Your task to perform on an android device: change the clock display to analog Image 0: 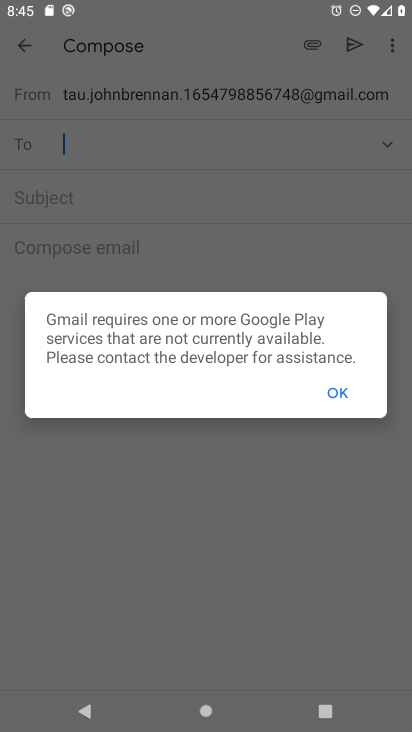
Step 0: click (351, 392)
Your task to perform on an android device: change the clock display to analog Image 1: 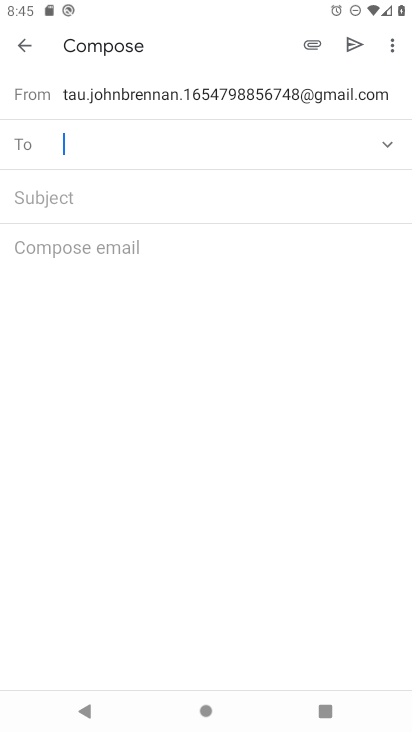
Step 1: press home button
Your task to perform on an android device: change the clock display to analog Image 2: 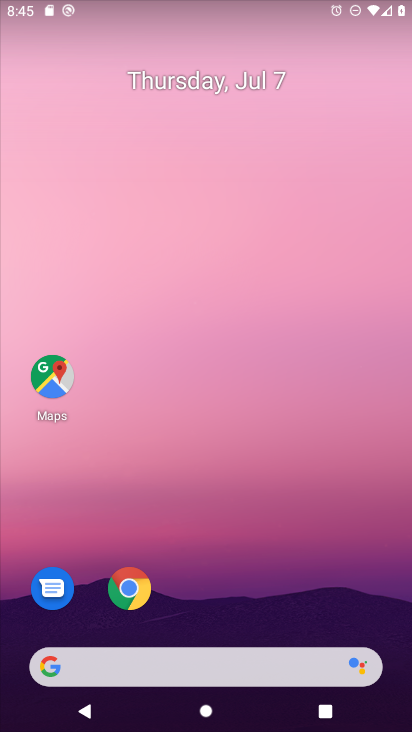
Step 2: drag from (219, 639) to (241, 155)
Your task to perform on an android device: change the clock display to analog Image 3: 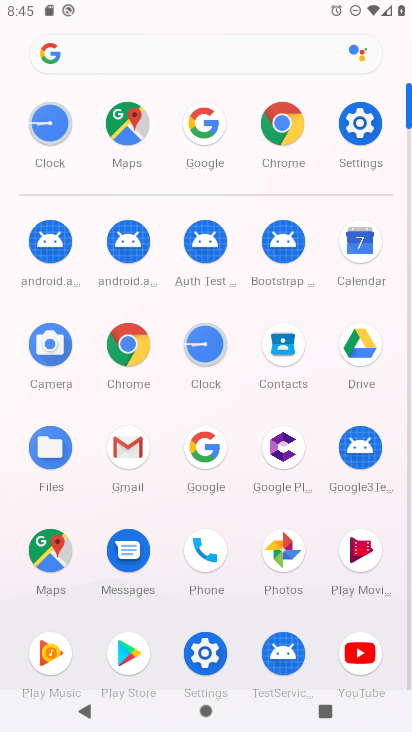
Step 3: click (209, 335)
Your task to perform on an android device: change the clock display to analog Image 4: 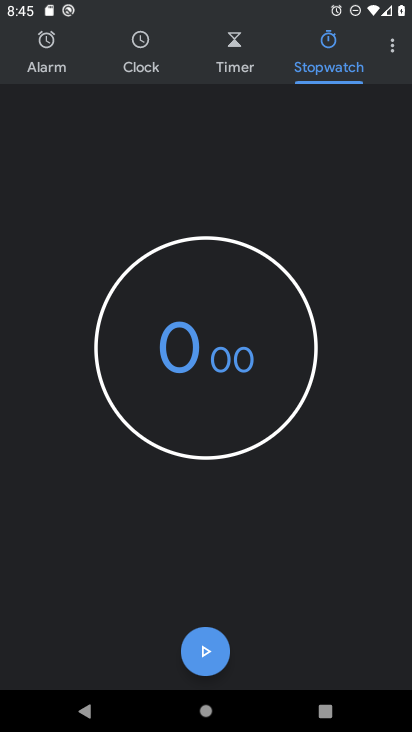
Step 4: click (396, 46)
Your task to perform on an android device: change the clock display to analog Image 5: 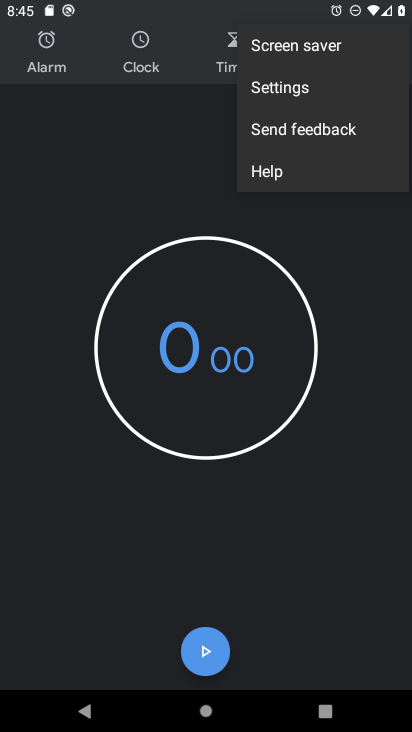
Step 5: click (297, 82)
Your task to perform on an android device: change the clock display to analog Image 6: 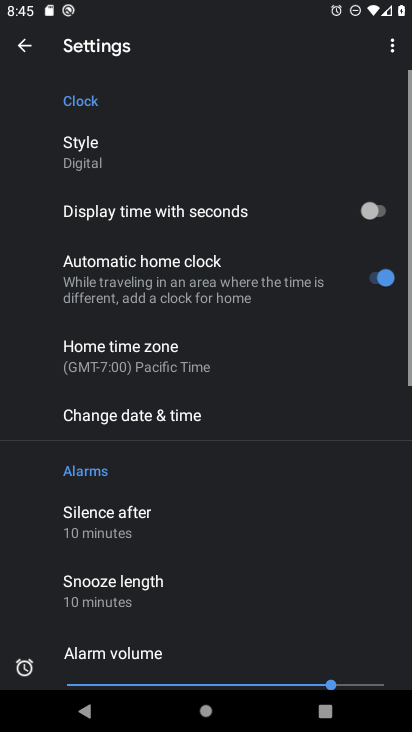
Step 6: click (109, 162)
Your task to perform on an android device: change the clock display to analog Image 7: 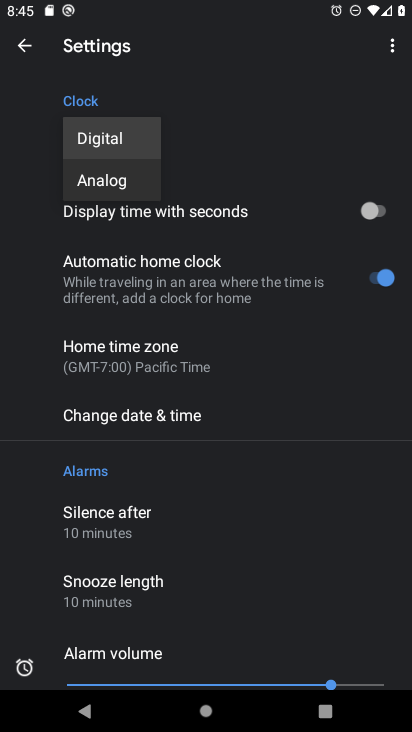
Step 7: click (115, 177)
Your task to perform on an android device: change the clock display to analog Image 8: 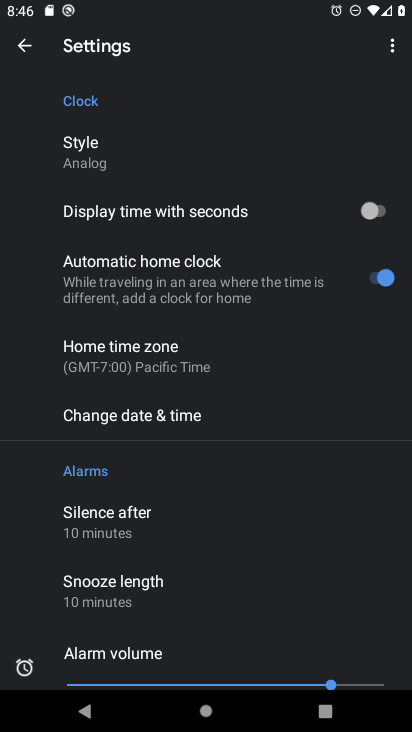
Step 8: task complete